Your task to perform on an android device: Play the last video I watched on Youtube Image 0: 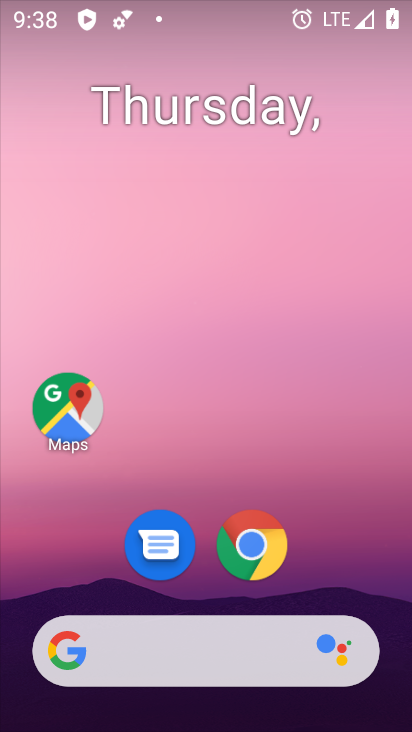
Step 0: drag from (339, 564) to (242, 81)
Your task to perform on an android device: Play the last video I watched on Youtube Image 1: 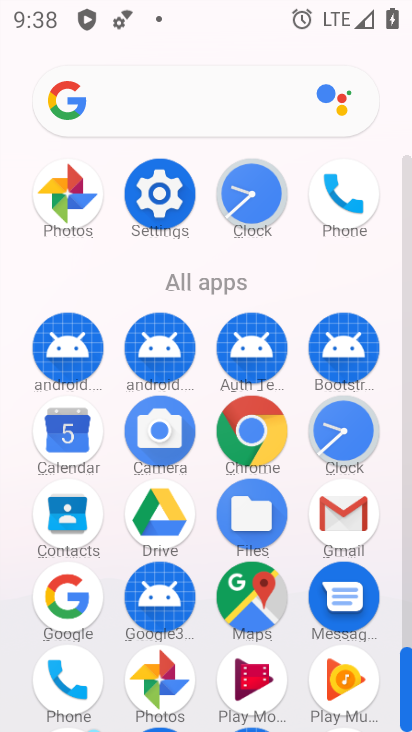
Step 1: drag from (217, 642) to (188, 384)
Your task to perform on an android device: Play the last video I watched on Youtube Image 2: 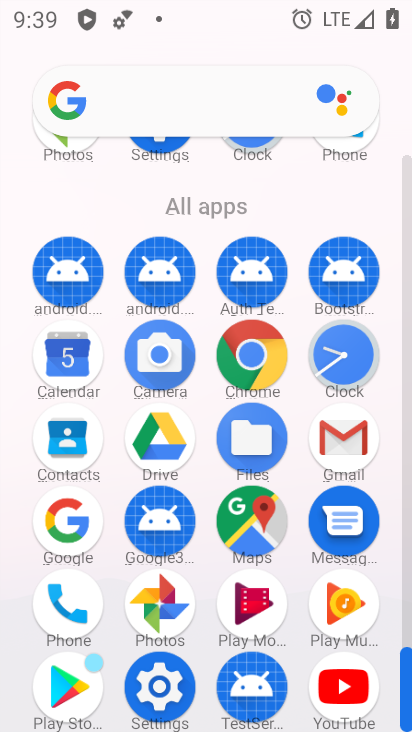
Step 2: click (348, 682)
Your task to perform on an android device: Play the last video I watched on Youtube Image 3: 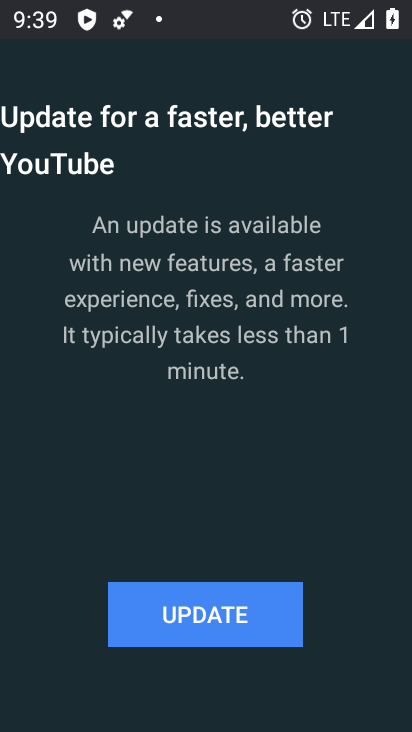
Step 3: click (206, 634)
Your task to perform on an android device: Play the last video I watched on Youtube Image 4: 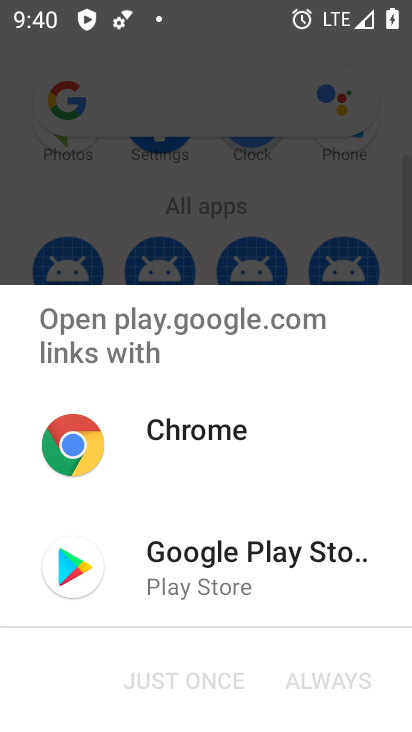
Step 4: click (215, 558)
Your task to perform on an android device: Play the last video I watched on Youtube Image 5: 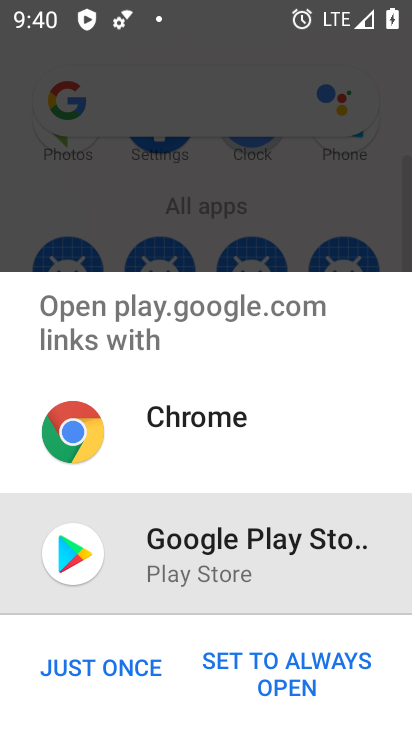
Step 5: click (100, 667)
Your task to perform on an android device: Play the last video I watched on Youtube Image 6: 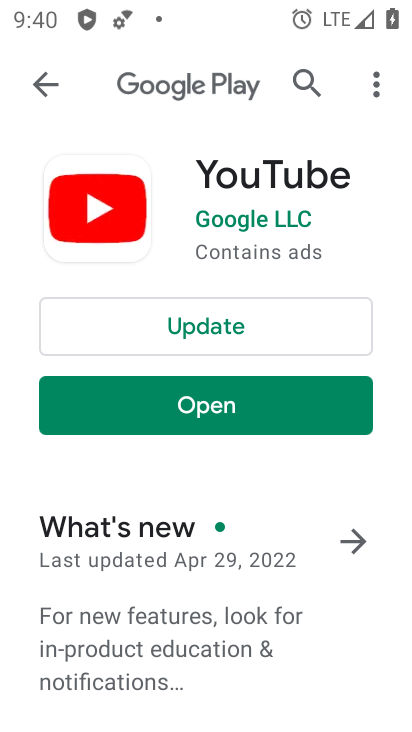
Step 6: click (215, 321)
Your task to perform on an android device: Play the last video I watched on Youtube Image 7: 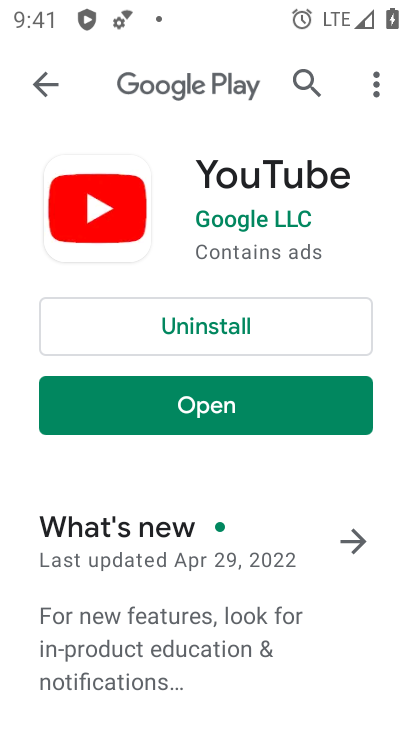
Step 7: click (230, 415)
Your task to perform on an android device: Play the last video I watched on Youtube Image 8: 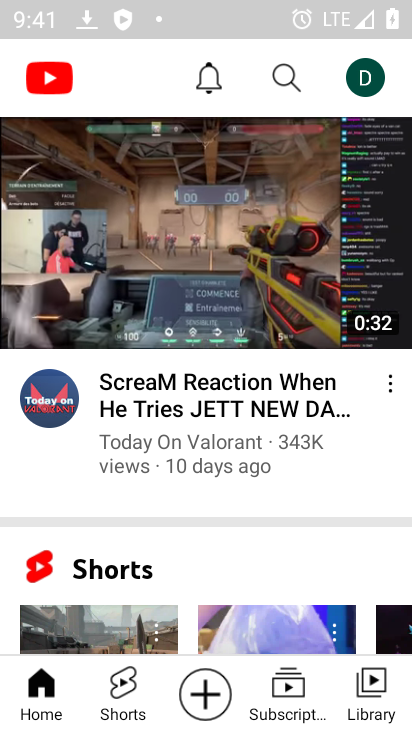
Step 8: click (383, 697)
Your task to perform on an android device: Play the last video I watched on Youtube Image 9: 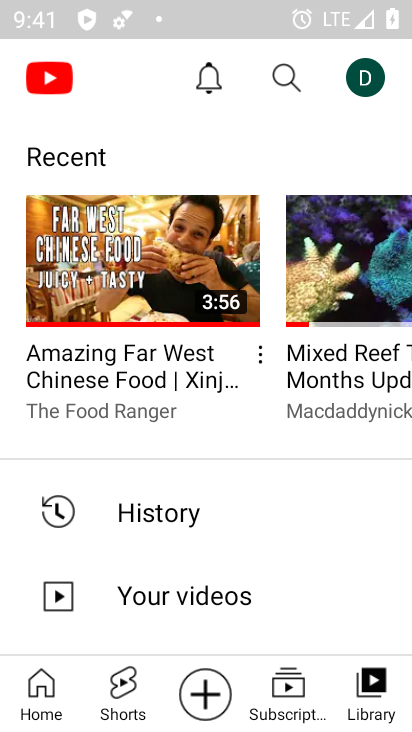
Step 9: click (123, 253)
Your task to perform on an android device: Play the last video I watched on Youtube Image 10: 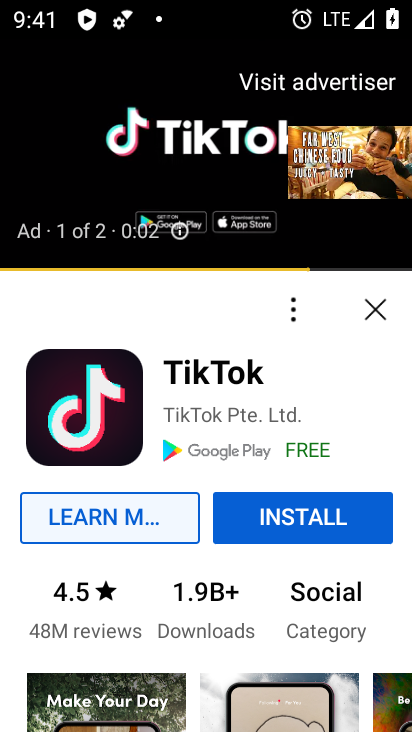
Step 10: task complete